Your task to perform on an android device: create a new album in the google photos Image 0: 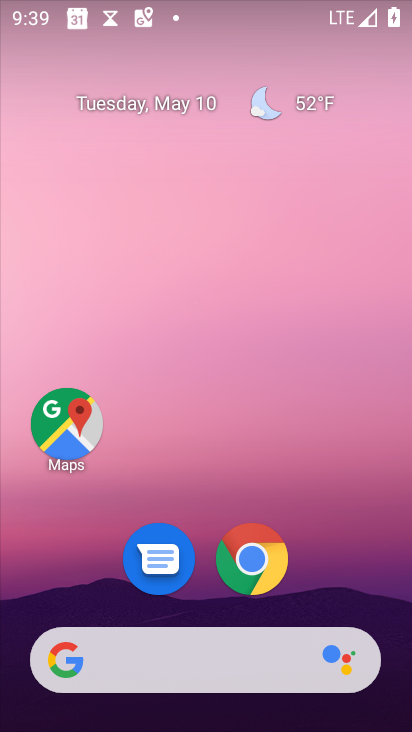
Step 0: drag from (318, 537) to (4, 66)
Your task to perform on an android device: create a new album in the google photos Image 1: 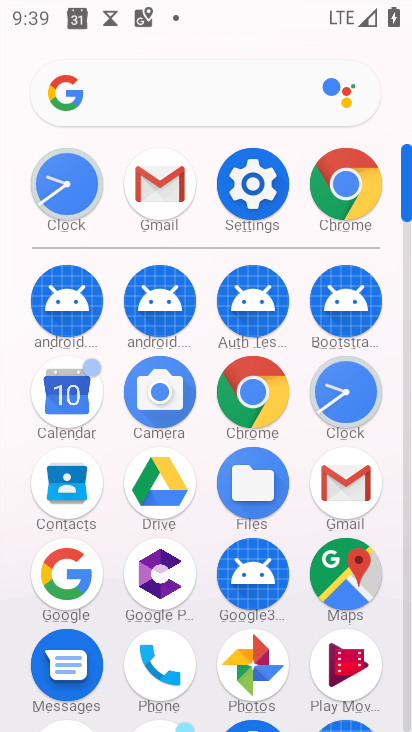
Step 1: drag from (7, 558) to (3, 154)
Your task to perform on an android device: create a new album in the google photos Image 2: 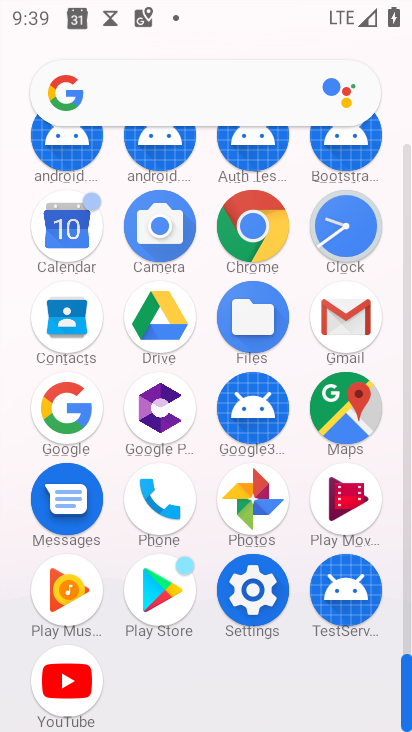
Step 2: click (255, 495)
Your task to perform on an android device: create a new album in the google photos Image 3: 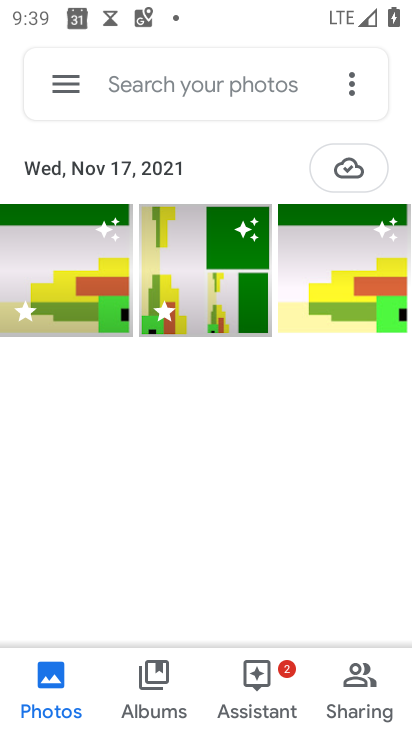
Step 3: click (185, 245)
Your task to perform on an android device: create a new album in the google photos Image 4: 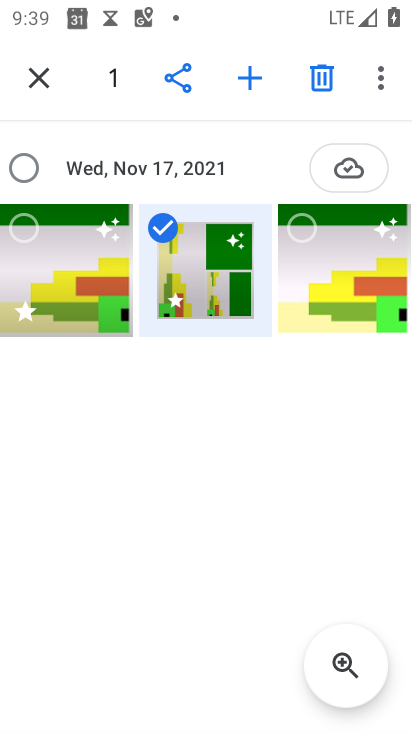
Step 4: click (244, 75)
Your task to perform on an android device: create a new album in the google photos Image 5: 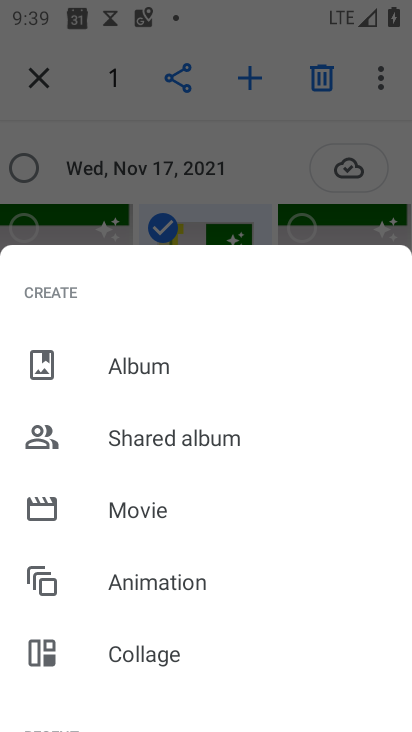
Step 5: click (134, 372)
Your task to perform on an android device: create a new album in the google photos Image 6: 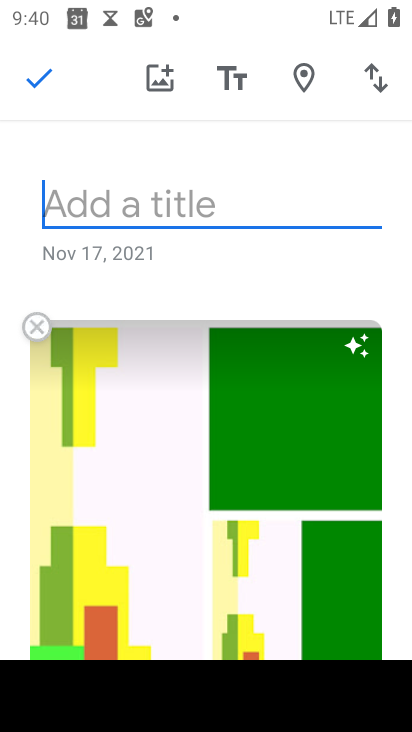
Step 6: type "FGS"
Your task to perform on an android device: create a new album in the google photos Image 7: 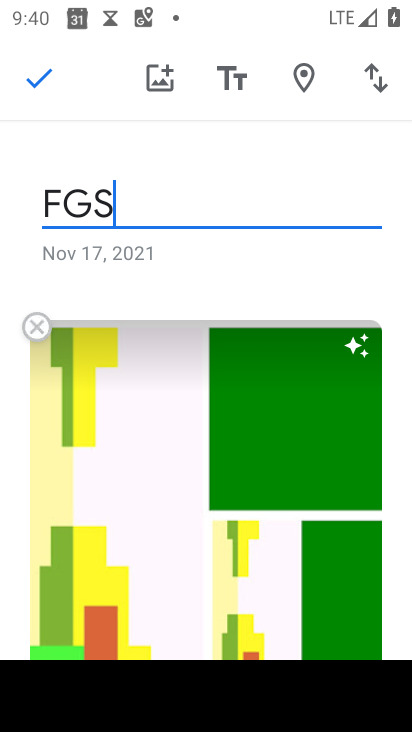
Step 7: type ""
Your task to perform on an android device: create a new album in the google photos Image 8: 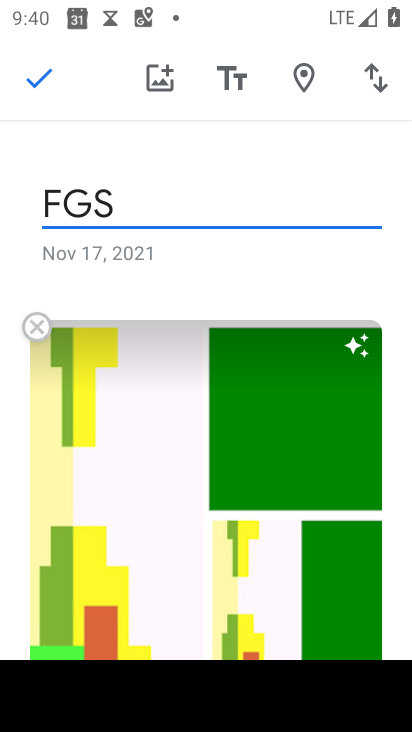
Step 8: click (39, 77)
Your task to perform on an android device: create a new album in the google photos Image 9: 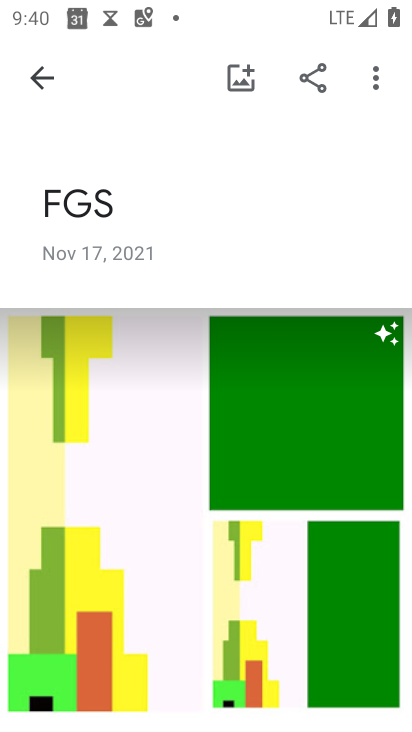
Step 9: task complete